Your task to perform on an android device: toggle translation in the chrome app Image 0: 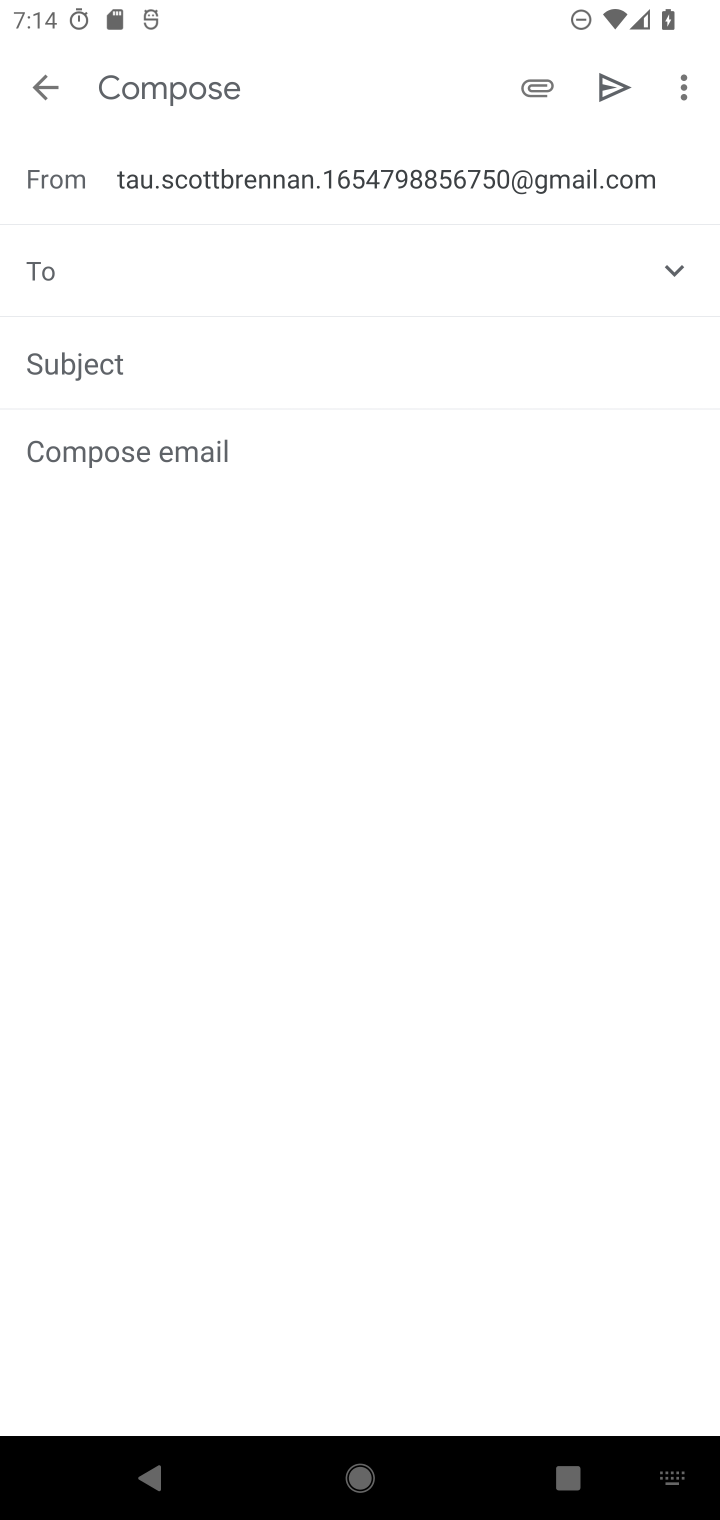
Step 0: press home button
Your task to perform on an android device: toggle translation in the chrome app Image 1: 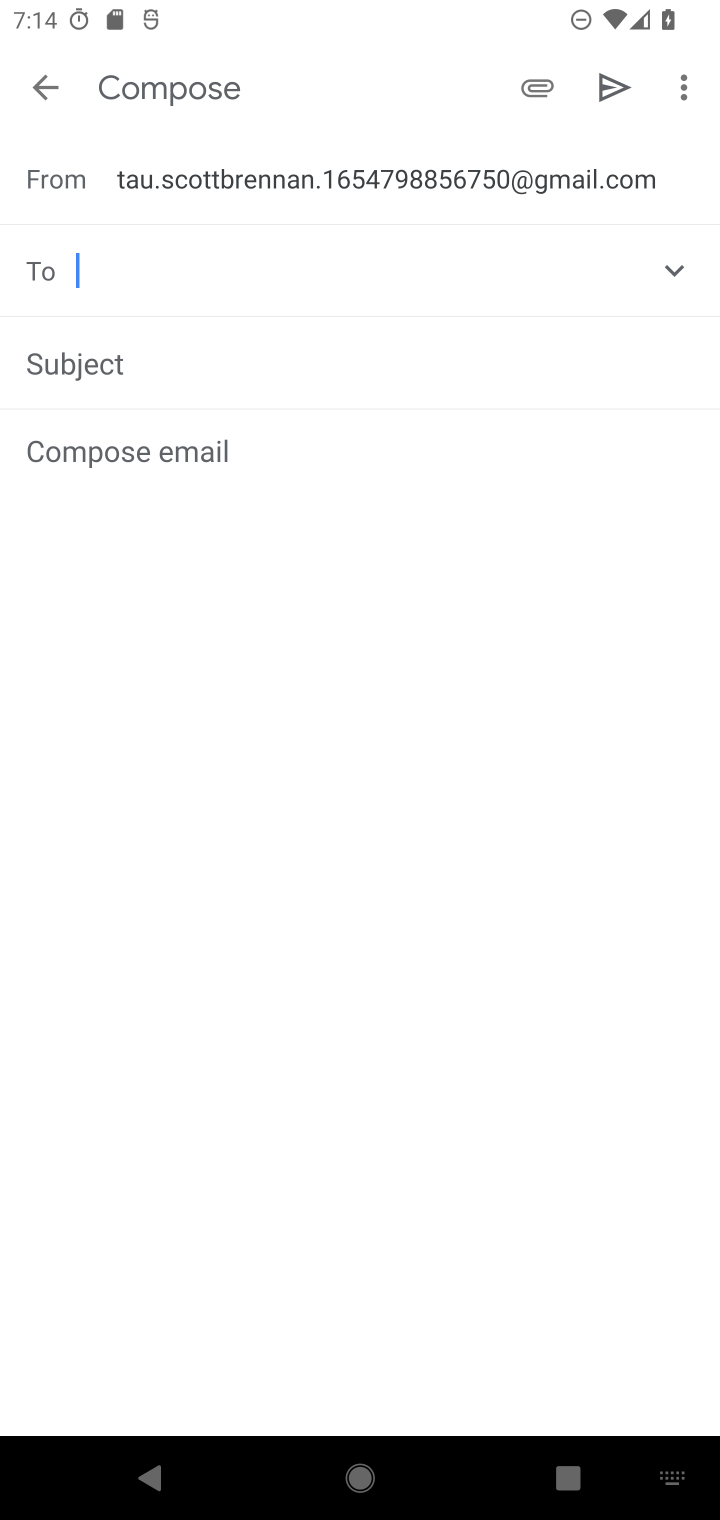
Step 1: press home button
Your task to perform on an android device: toggle translation in the chrome app Image 2: 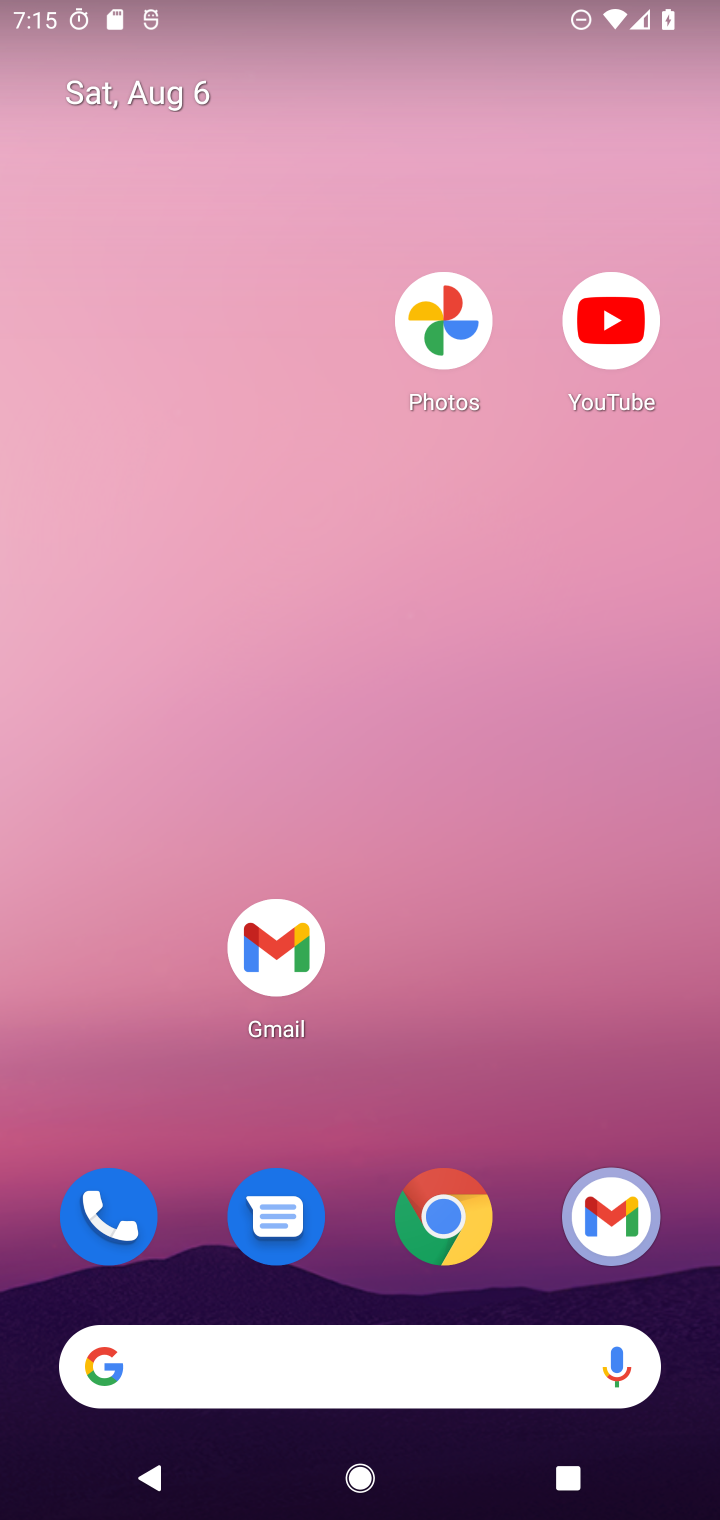
Step 2: drag from (494, 738) to (525, 255)
Your task to perform on an android device: toggle translation in the chrome app Image 3: 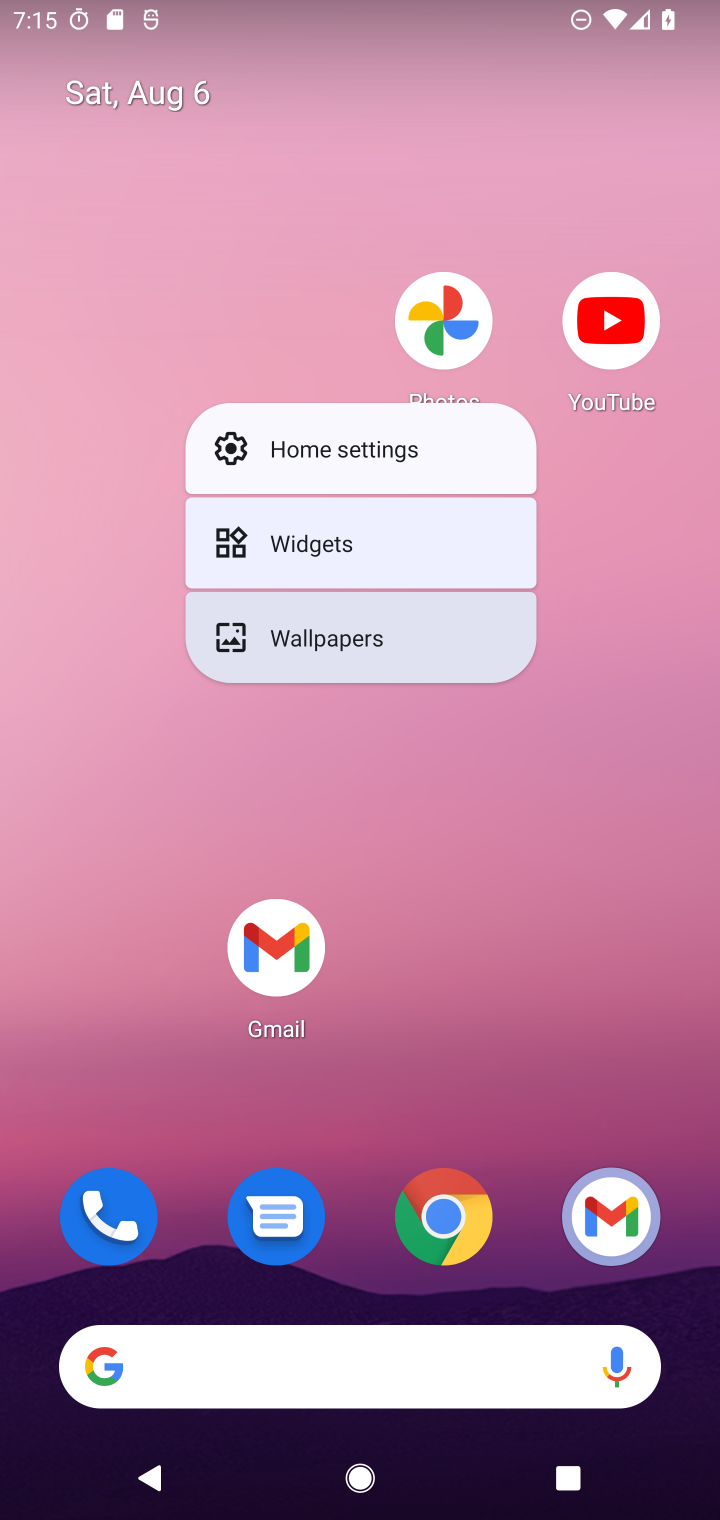
Step 3: click (540, 1000)
Your task to perform on an android device: toggle translation in the chrome app Image 4: 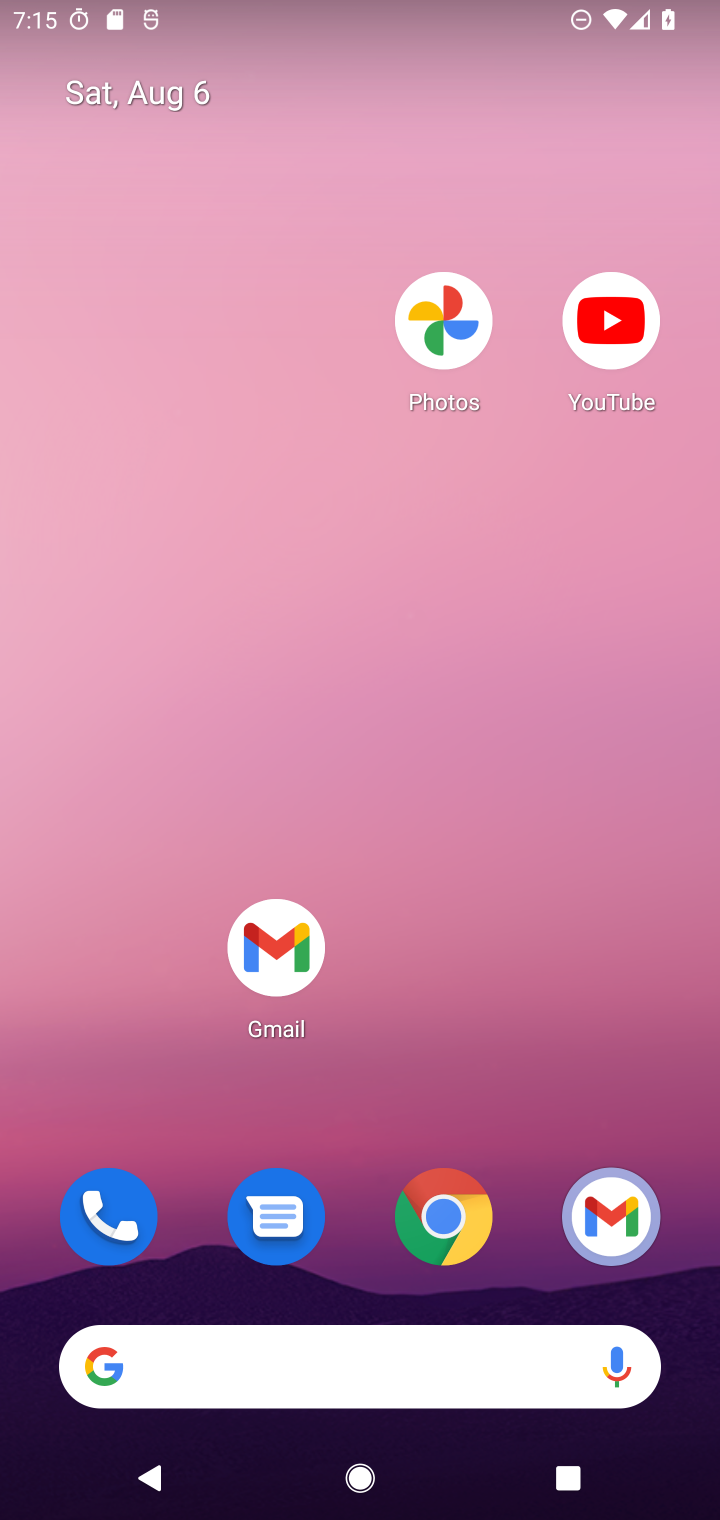
Step 4: drag from (538, 832) to (601, 53)
Your task to perform on an android device: toggle translation in the chrome app Image 5: 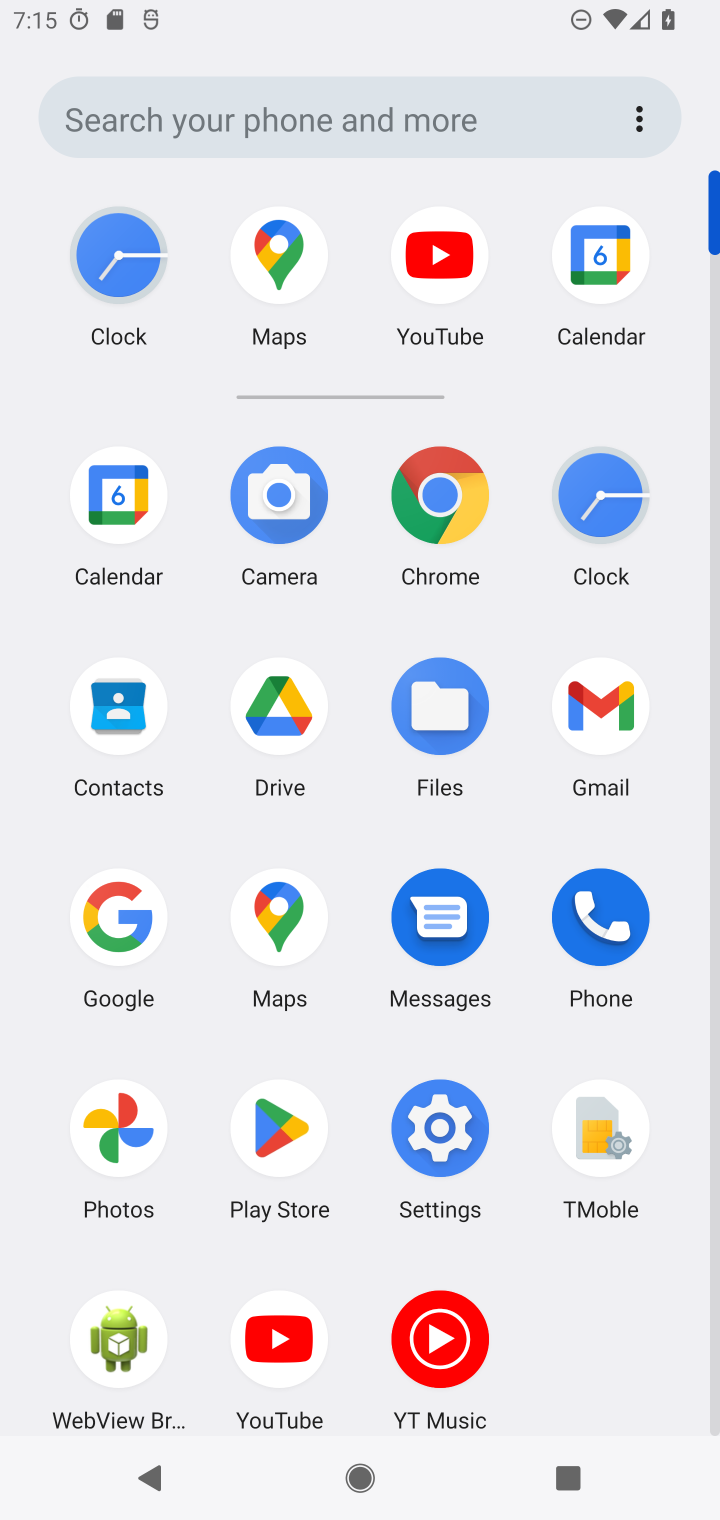
Step 5: click (456, 492)
Your task to perform on an android device: toggle translation in the chrome app Image 6: 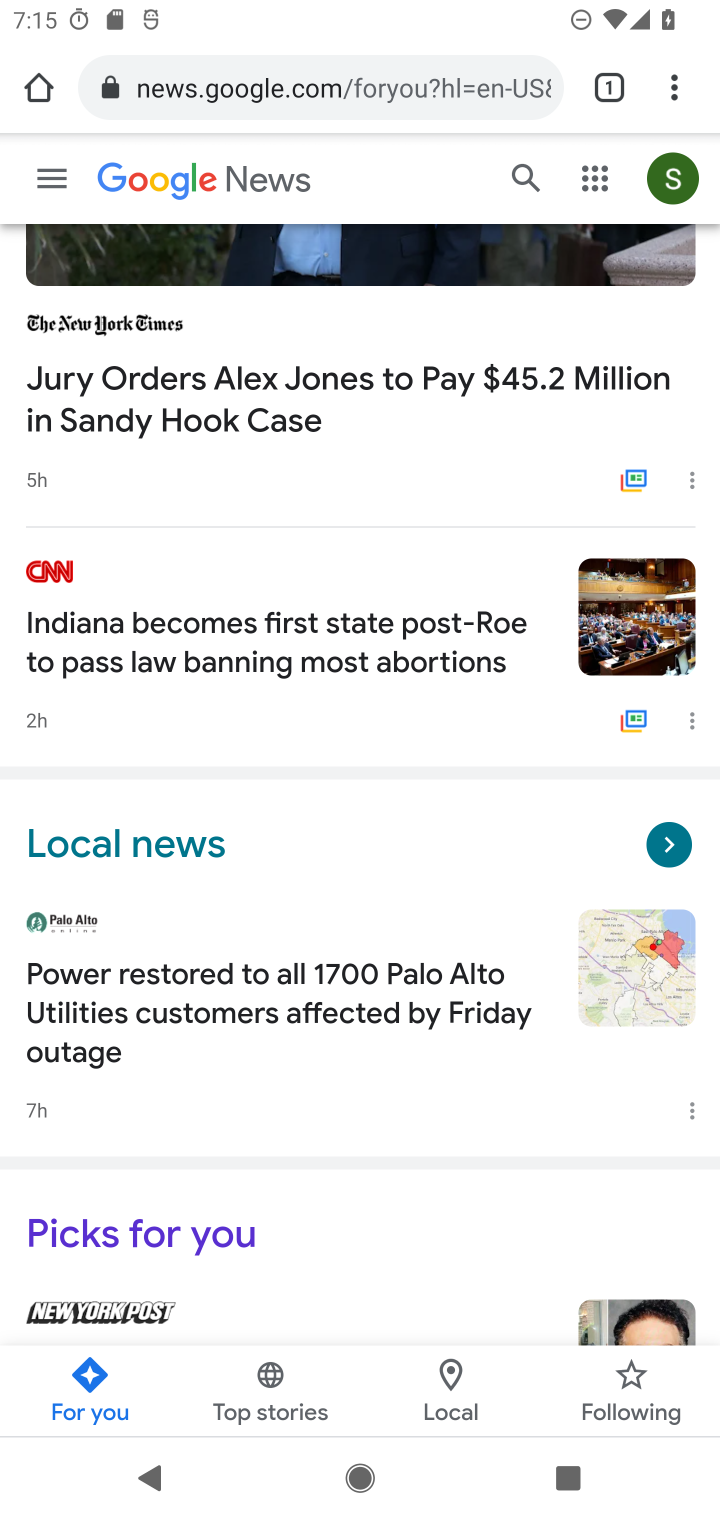
Step 6: drag from (680, 87) to (446, 1185)
Your task to perform on an android device: toggle translation in the chrome app Image 7: 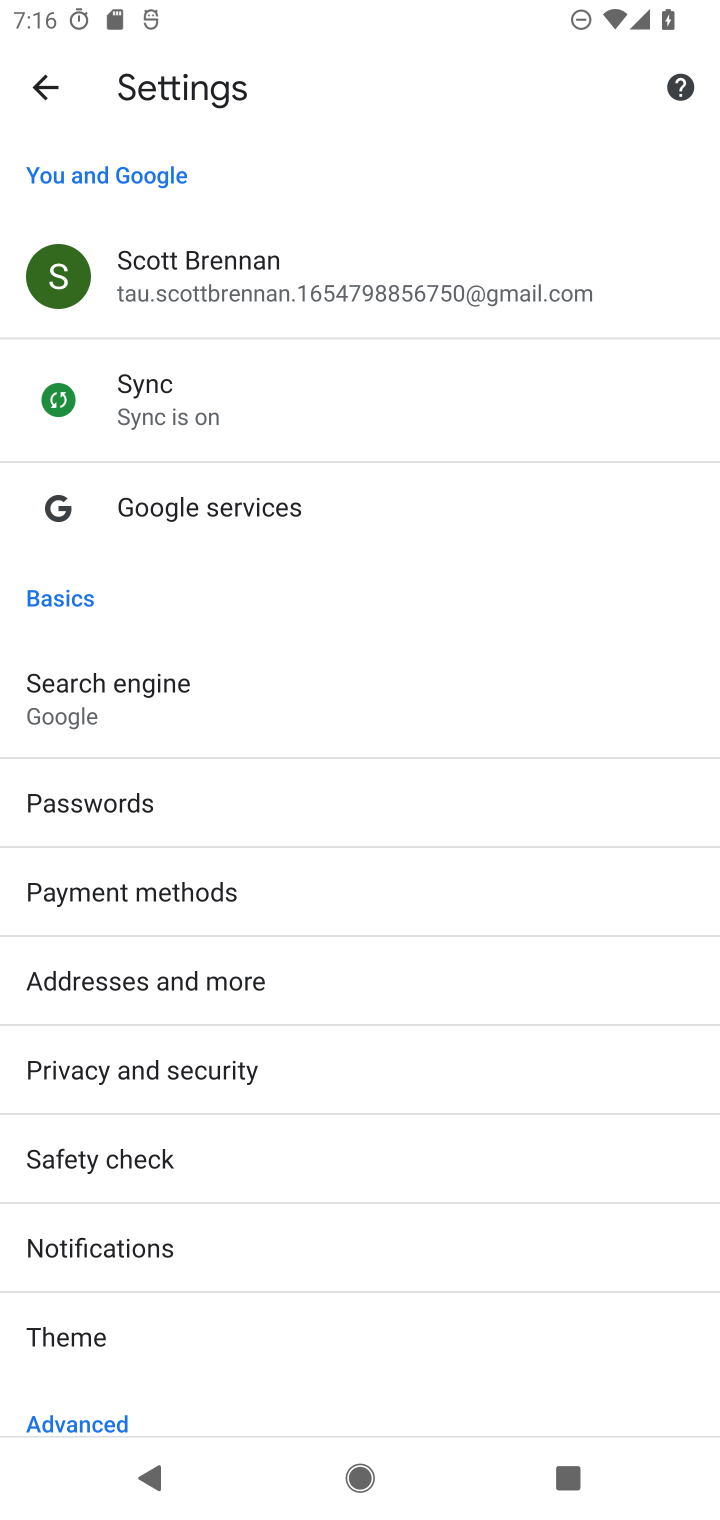
Step 7: drag from (301, 1311) to (494, 379)
Your task to perform on an android device: toggle translation in the chrome app Image 8: 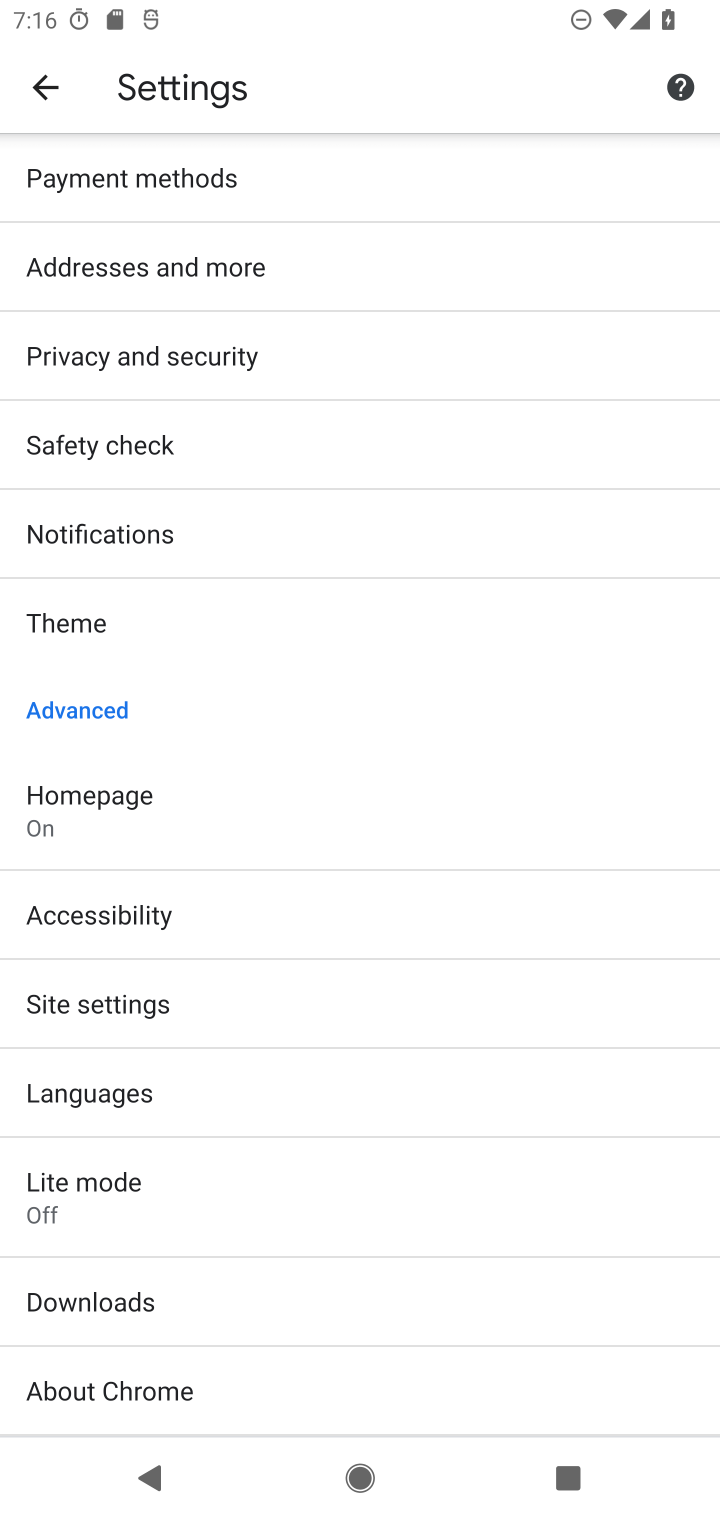
Step 8: click (122, 1096)
Your task to perform on an android device: toggle translation in the chrome app Image 9: 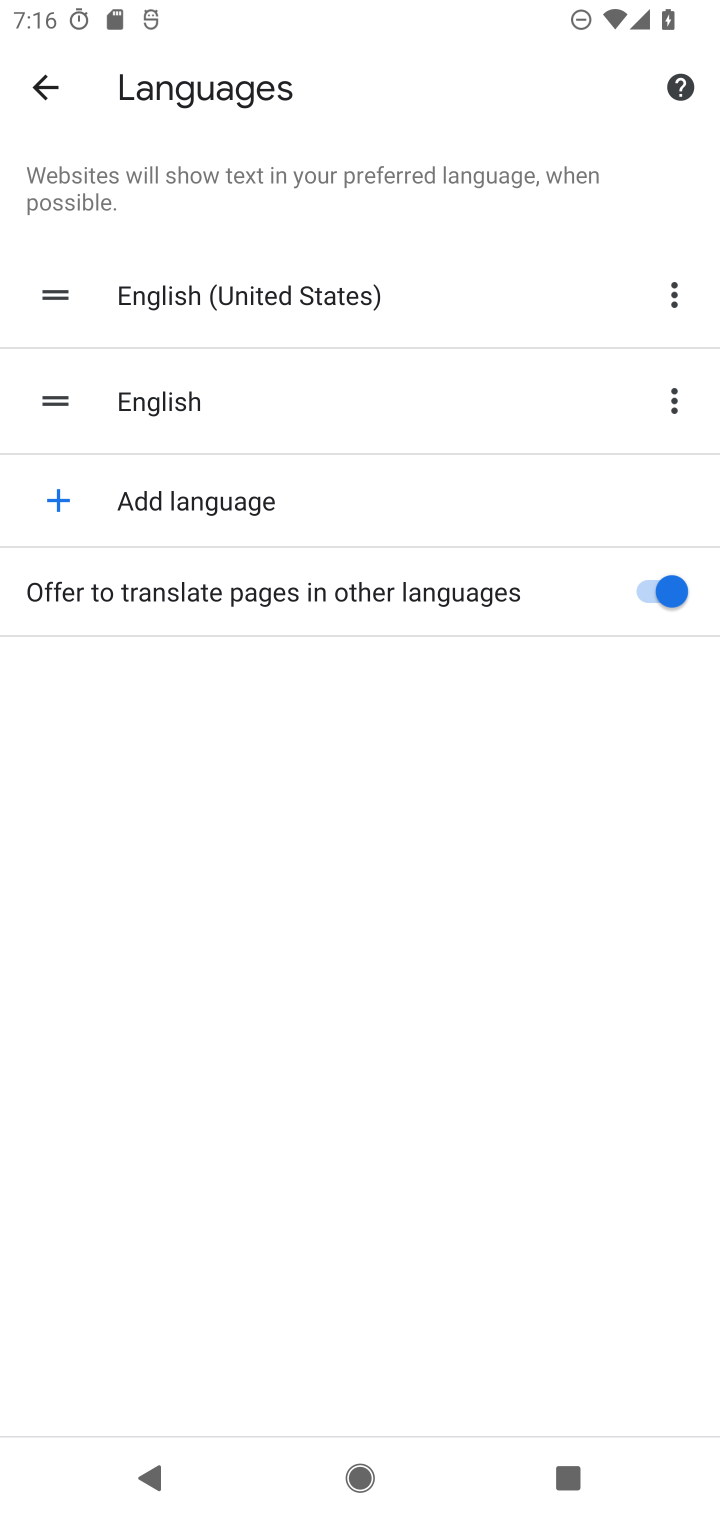
Step 9: click (666, 583)
Your task to perform on an android device: toggle translation in the chrome app Image 10: 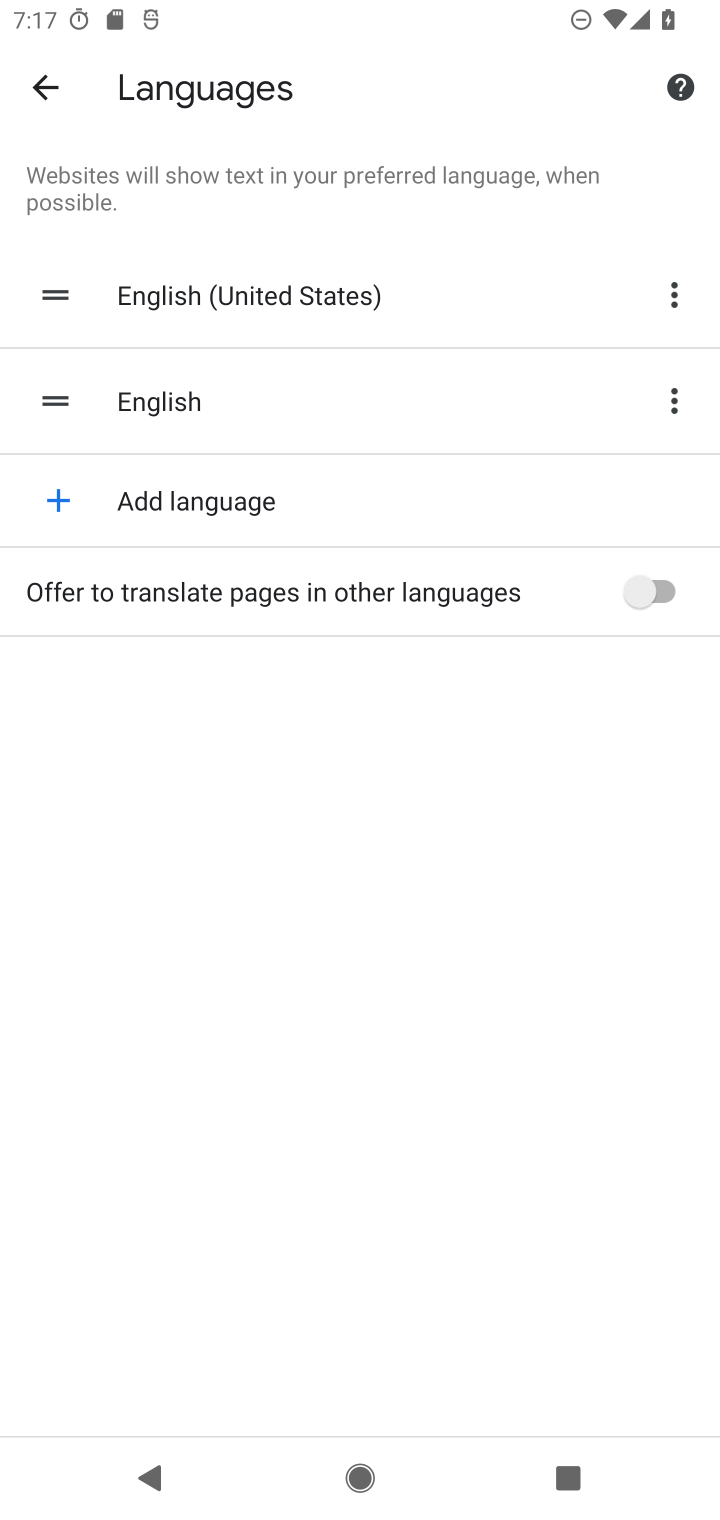
Step 10: press home button
Your task to perform on an android device: toggle translation in the chrome app Image 11: 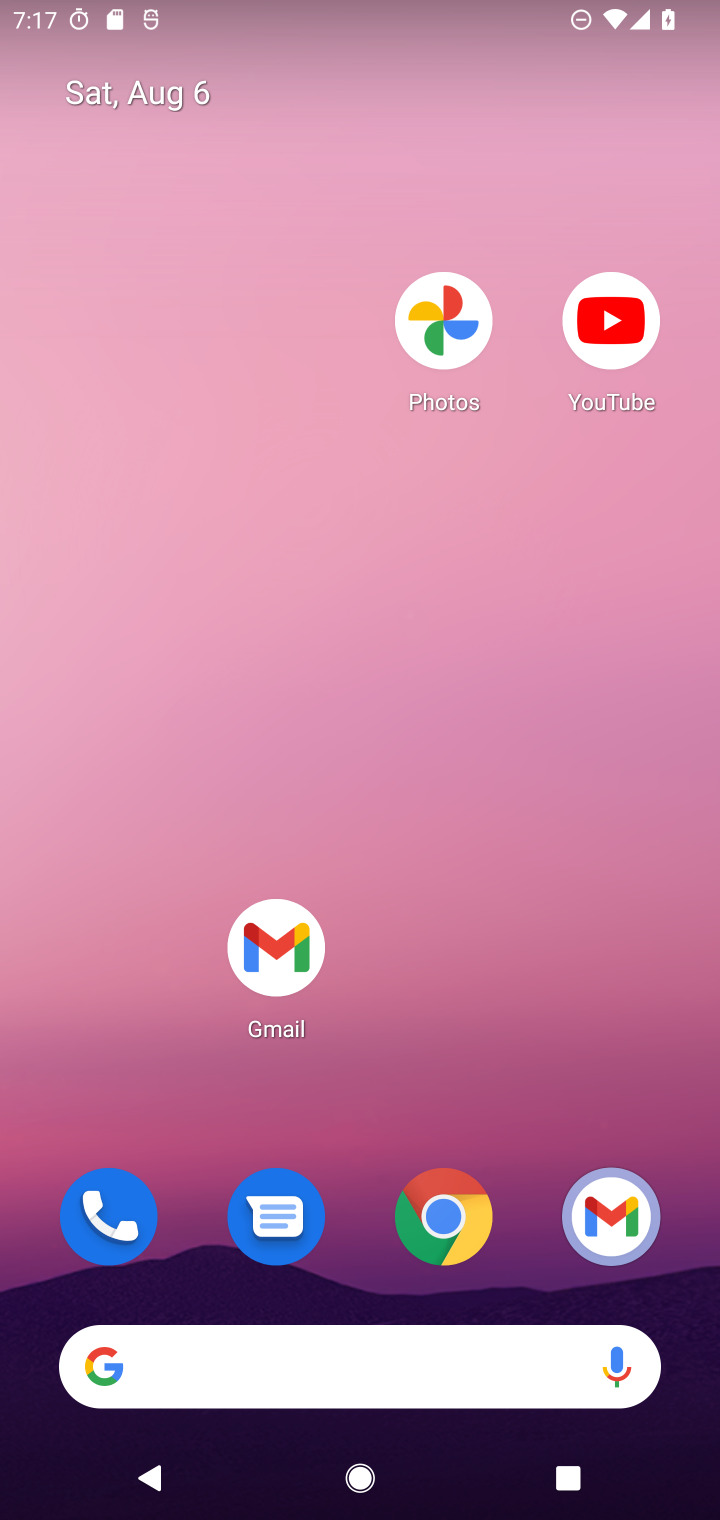
Step 11: drag from (511, 1061) to (539, 176)
Your task to perform on an android device: toggle translation in the chrome app Image 12: 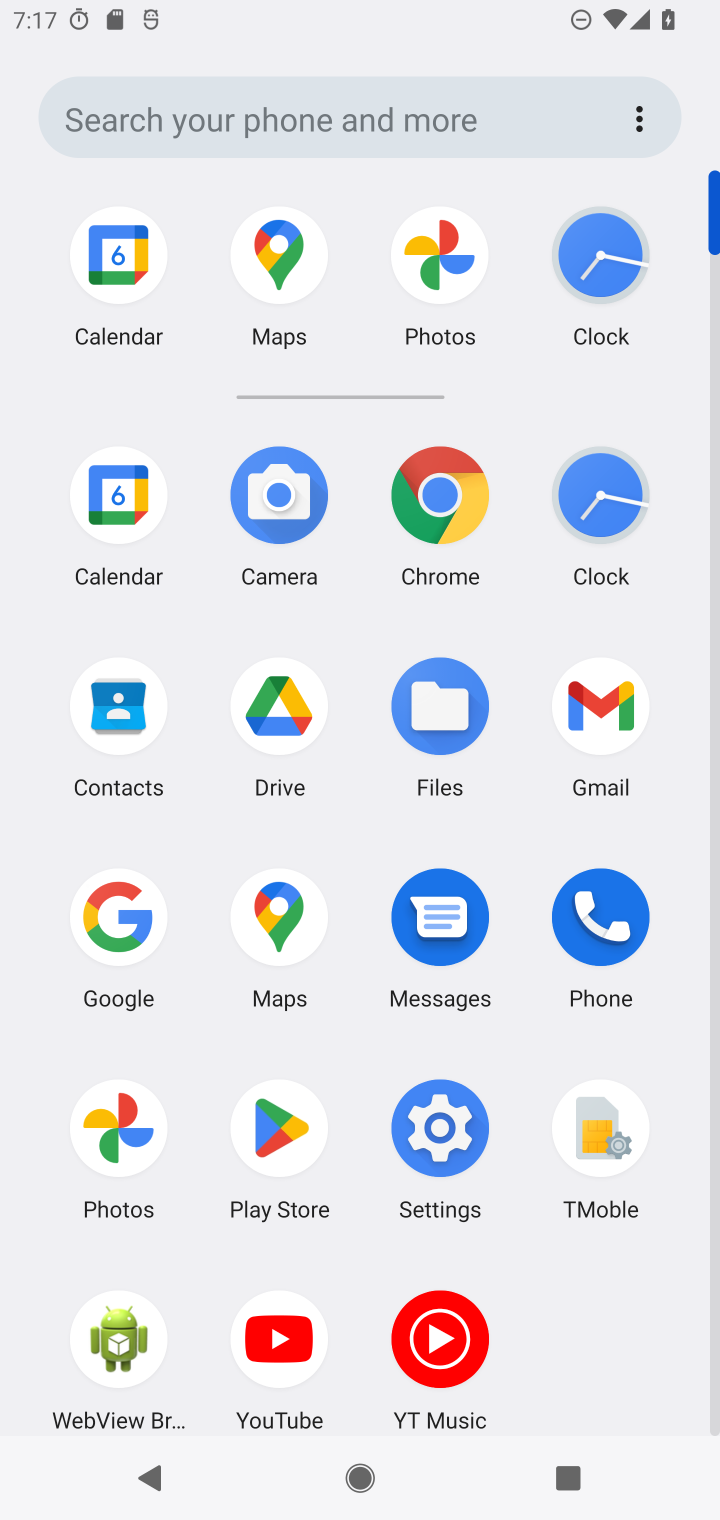
Step 12: click (439, 488)
Your task to perform on an android device: toggle translation in the chrome app Image 13: 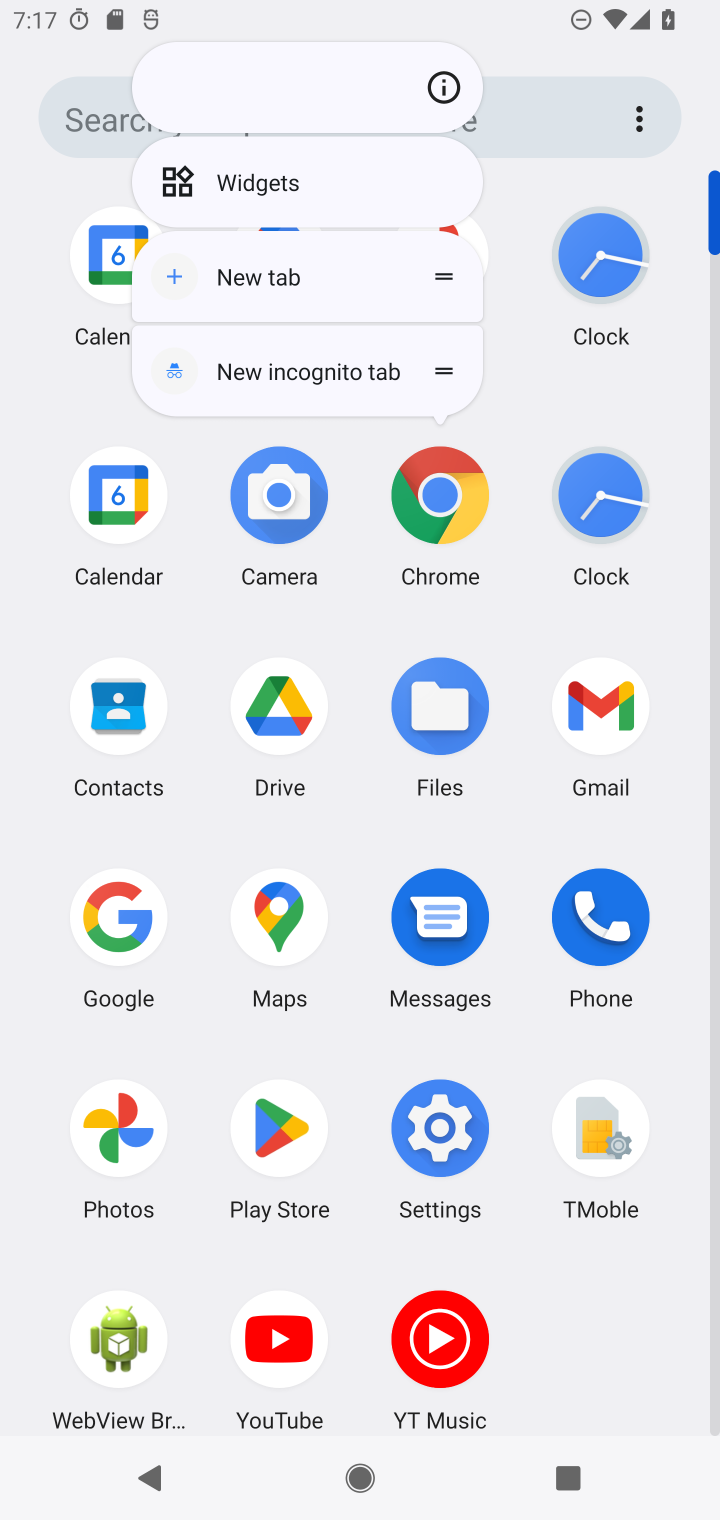
Step 13: click (439, 488)
Your task to perform on an android device: toggle translation in the chrome app Image 14: 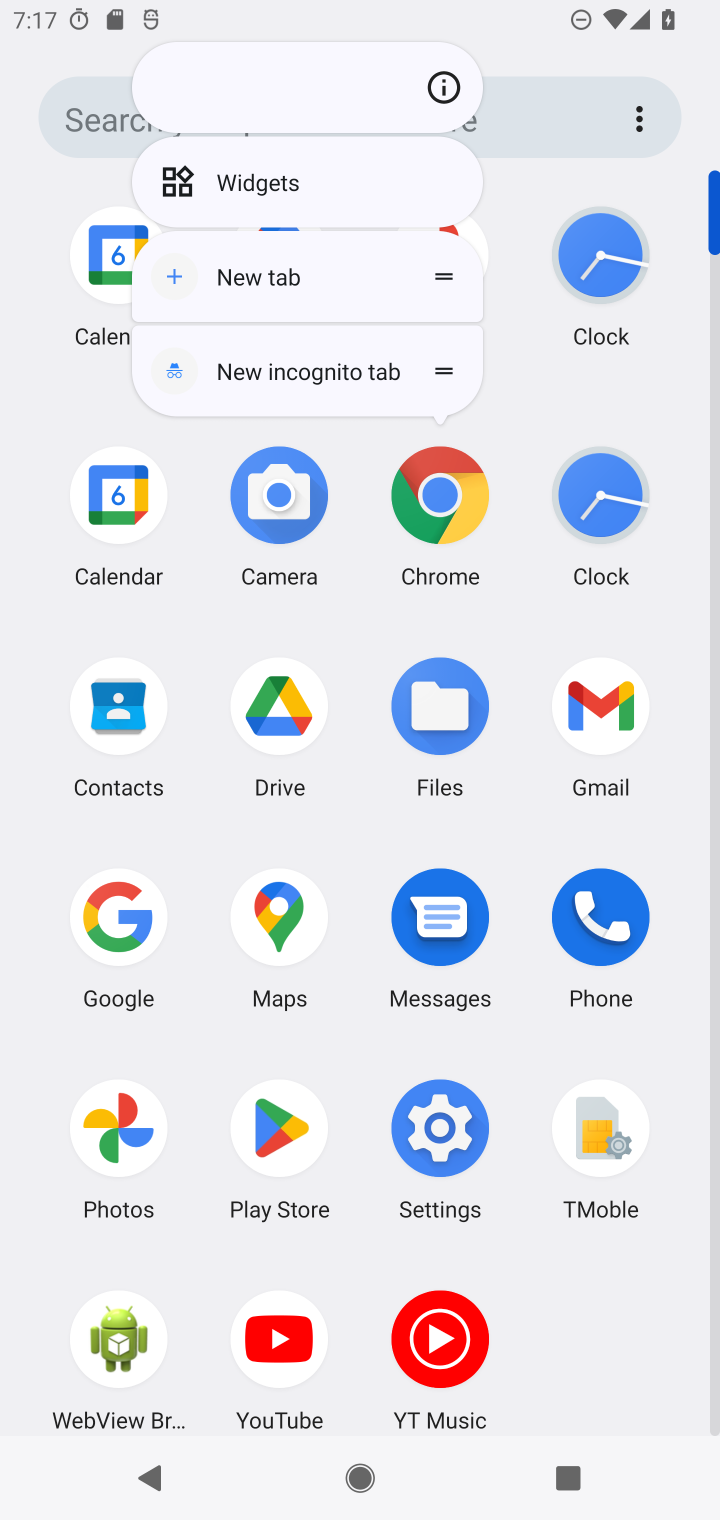
Step 14: click (432, 501)
Your task to perform on an android device: toggle translation in the chrome app Image 15: 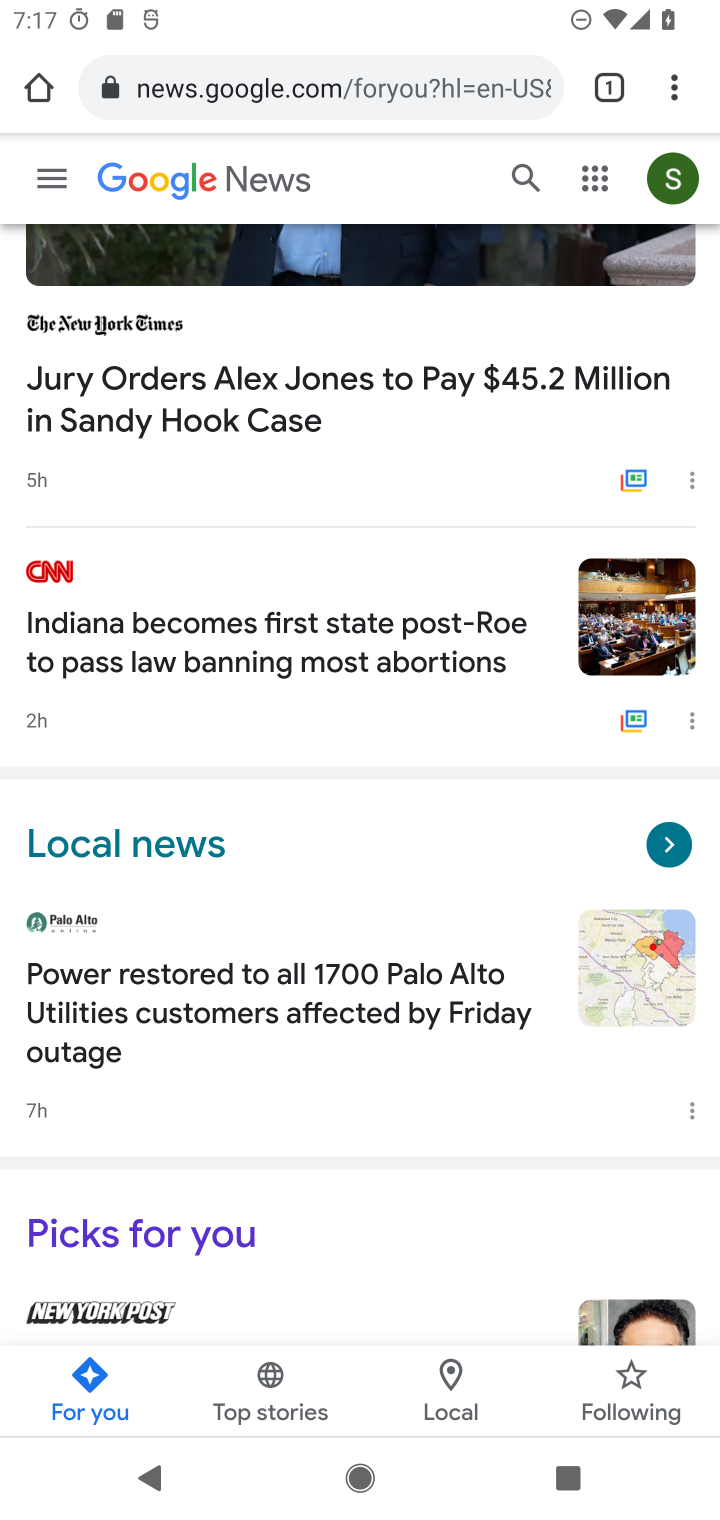
Step 15: drag from (683, 71) to (427, 1168)
Your task to perform on an android device: toggle translation in the chrome app Image 16: 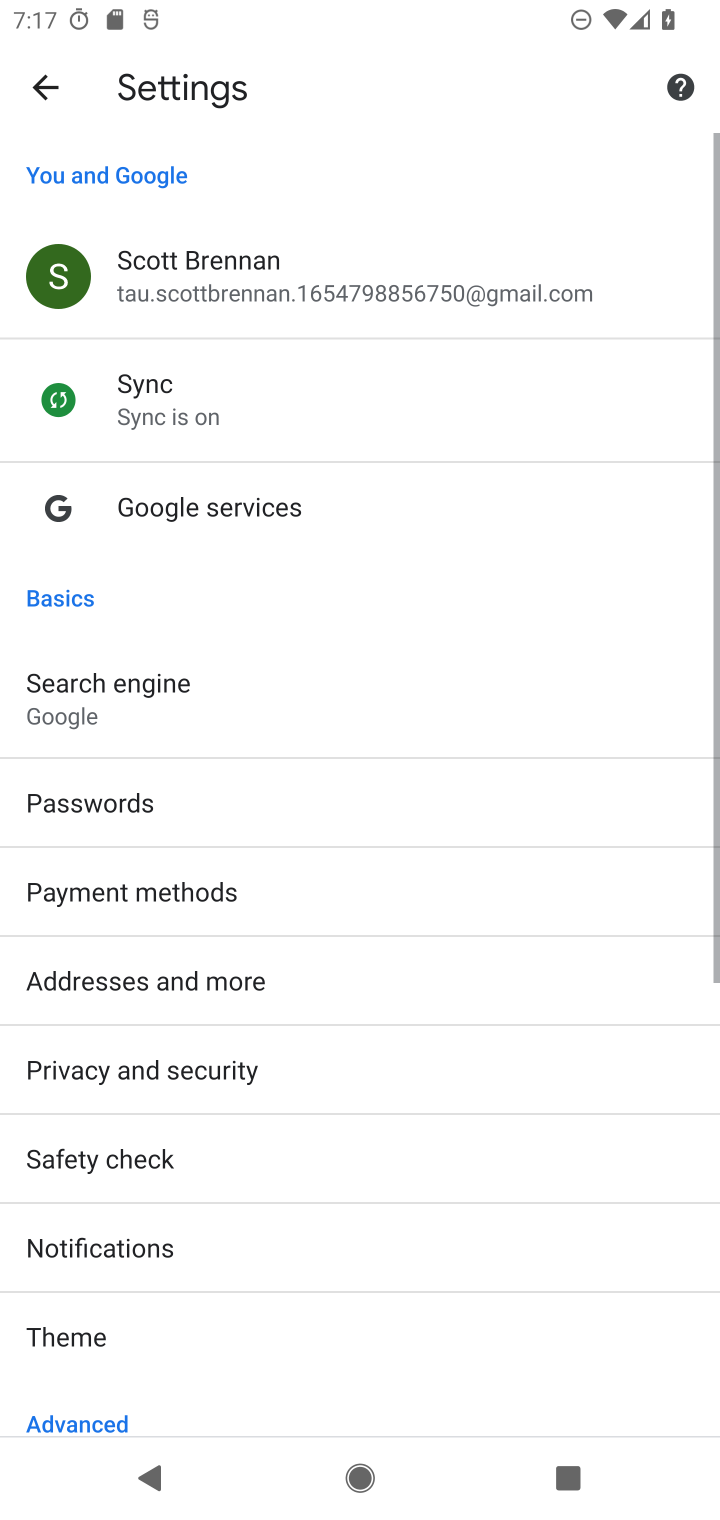
Step 16: drag from (541, 1165) to (644, 83)
Your task to perform on an android device: toggle translation in the chrome app Image 17: 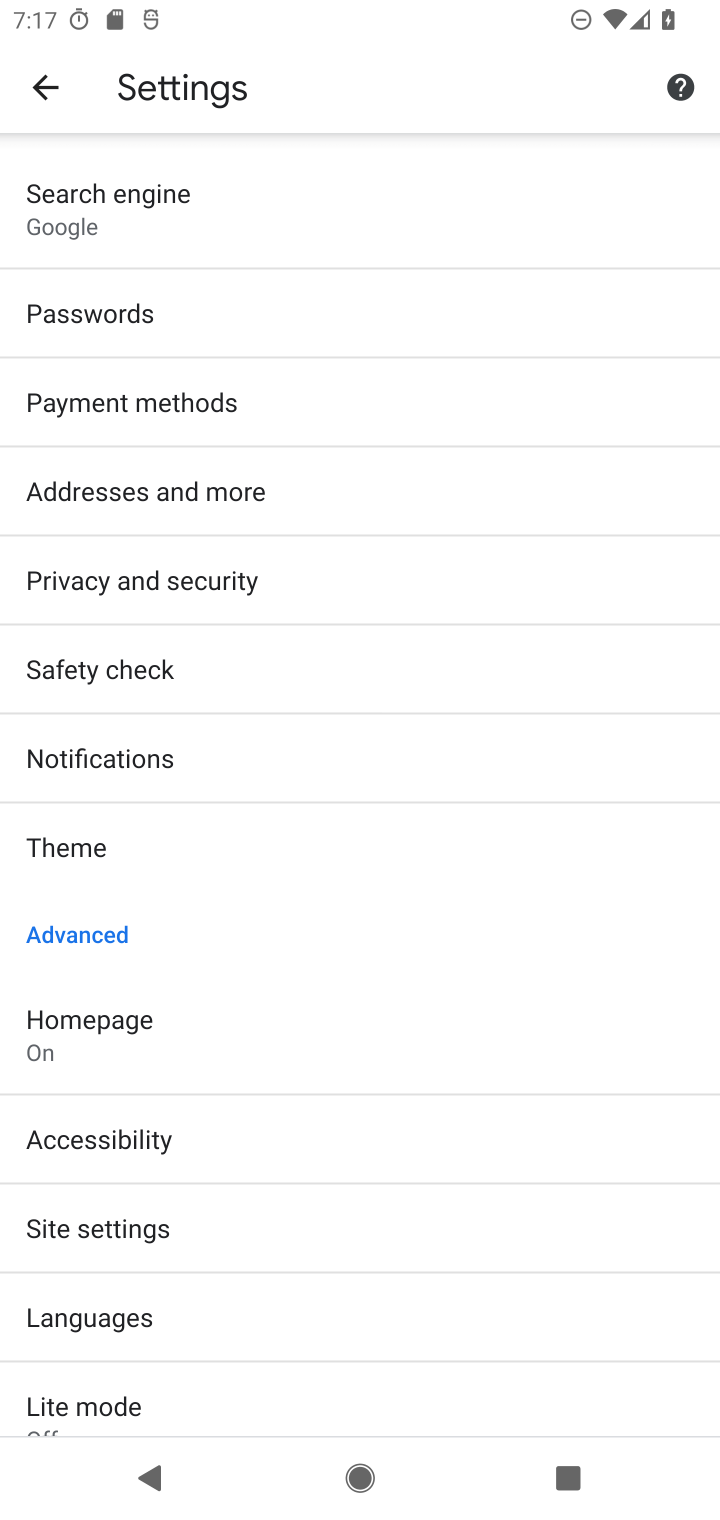
Step 17: click (91, 1339)
Your task to perform on an android device: toggle translation in the chrome app Image 18: 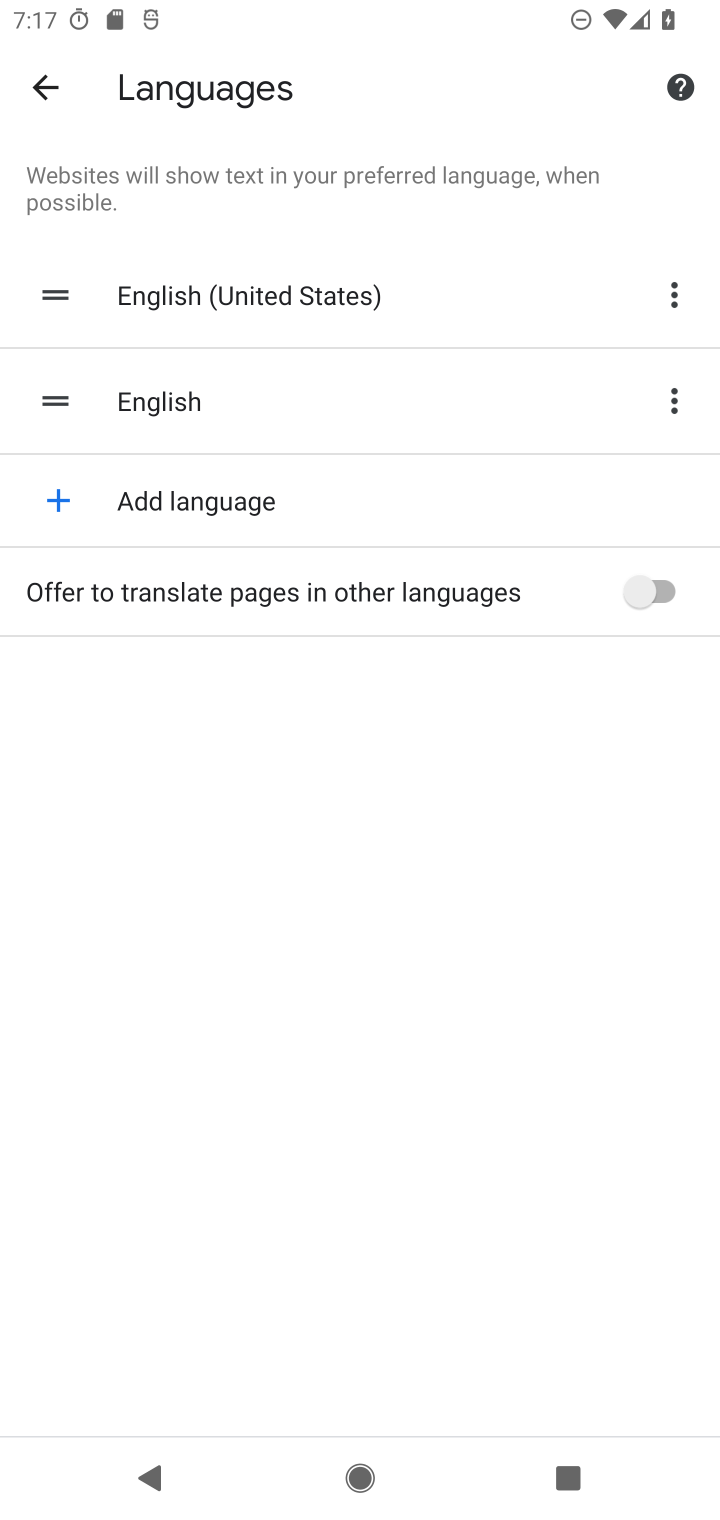
Step 18: click (654, 580)
Your task to perform on an android device: toggle translation in the chrome app Image 19: 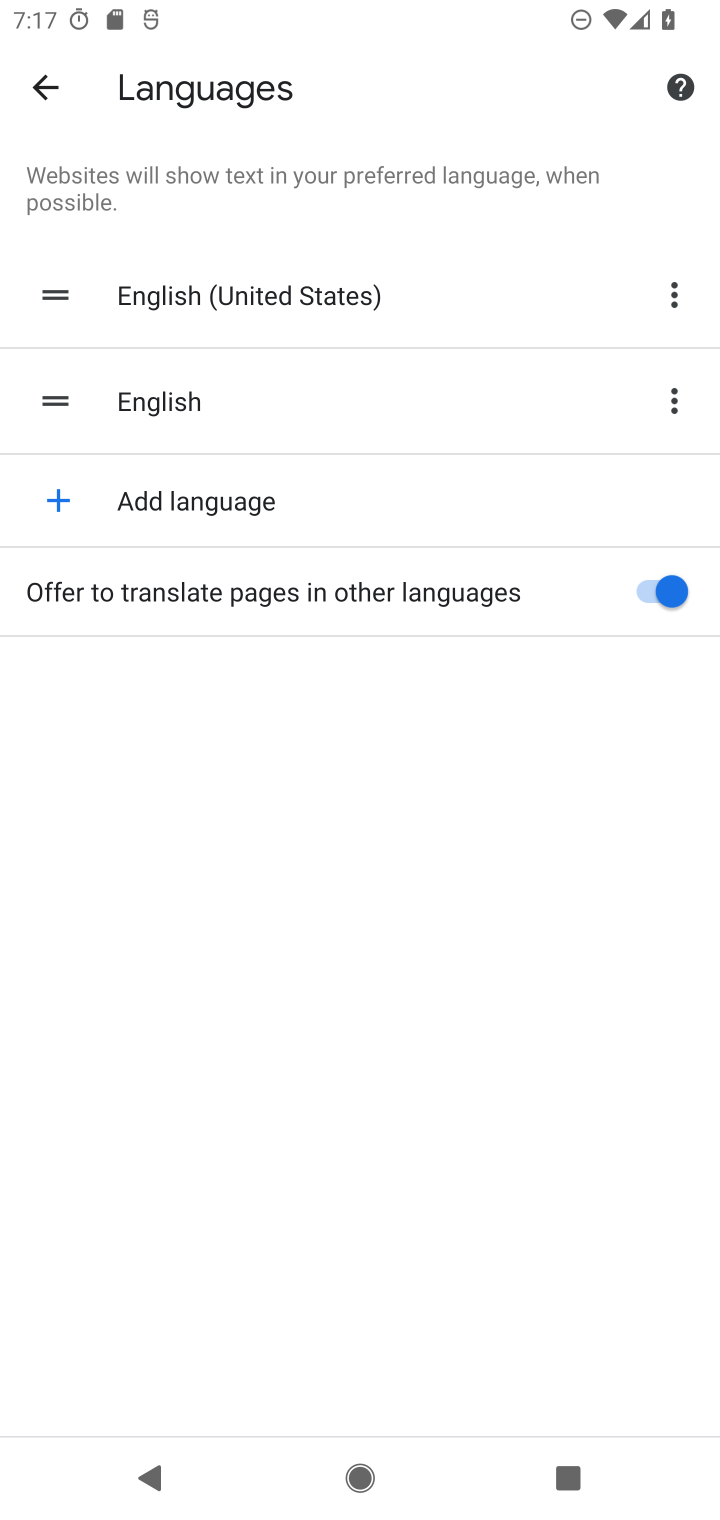
Step 19: task complete